Your task to perform on an android device: all mails in gmail Image 0: 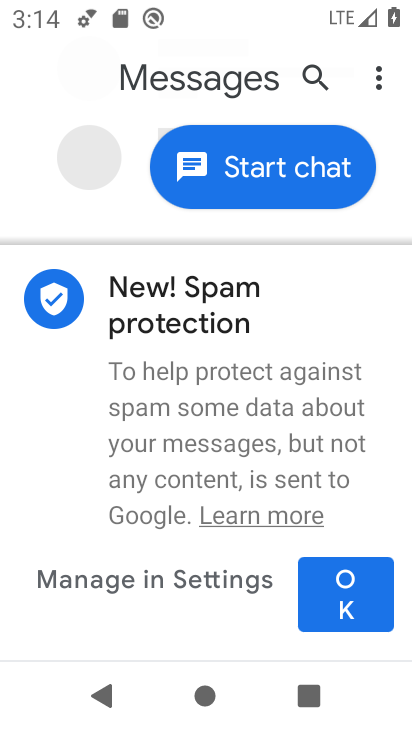
Step 0: press home button
Your task to perform on an android device: all mails in gmail Image 1: 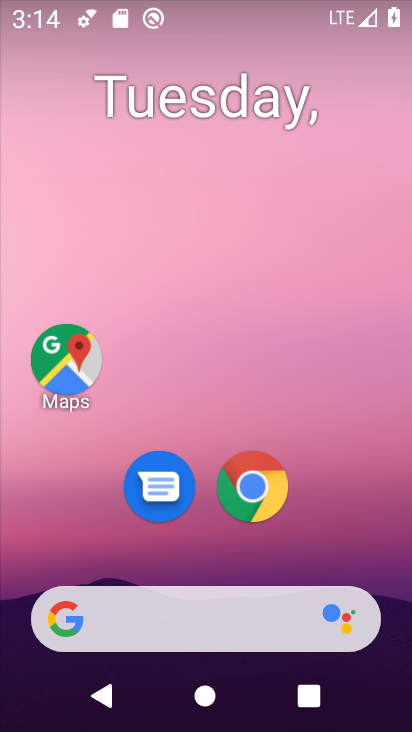
Step 1: drag from (215, 547) to (248, 58)
Your task to perform on an android device: all mails in gmail Image 2: 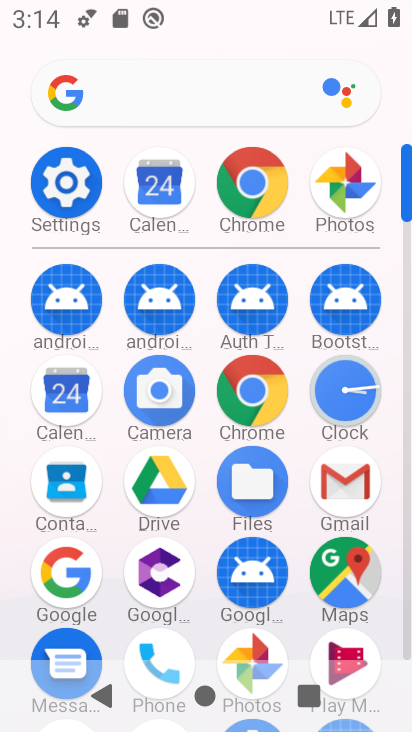
Step 2: click (346, 470)
Your task to perform on an android device: all mails in gmail Image 3: 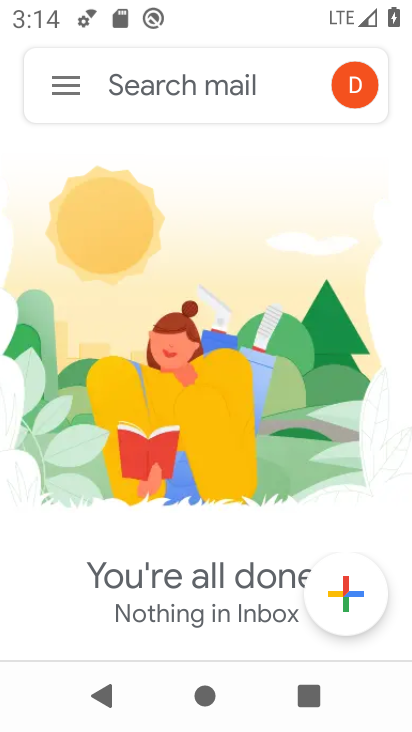
Step 3: click (74, 83)
Your task to perform on an android device: all mails in gmail Image 4: 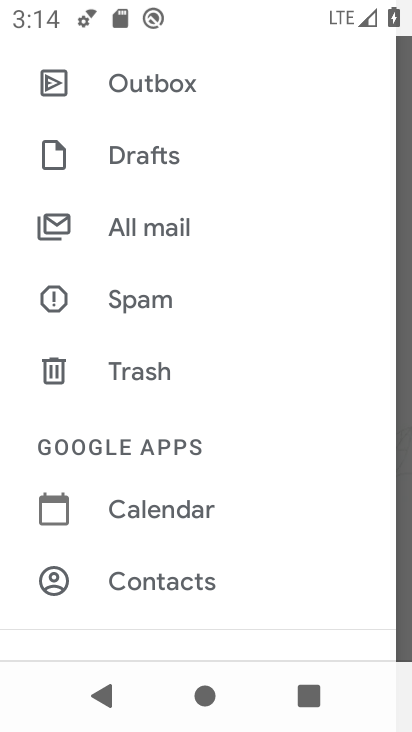
Step 4: click (172, 223)
Your task to perform on an android device: all mails in gmail Image 5: 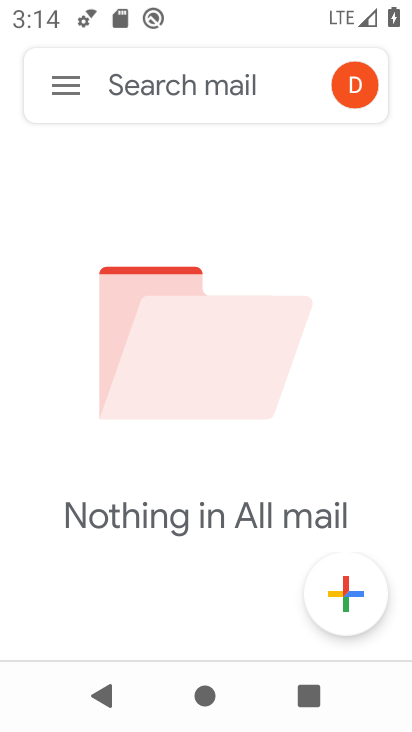
Step 5: task complete